Your task to perform on an android device: toggle priority inbox in the gmail app Image 0: 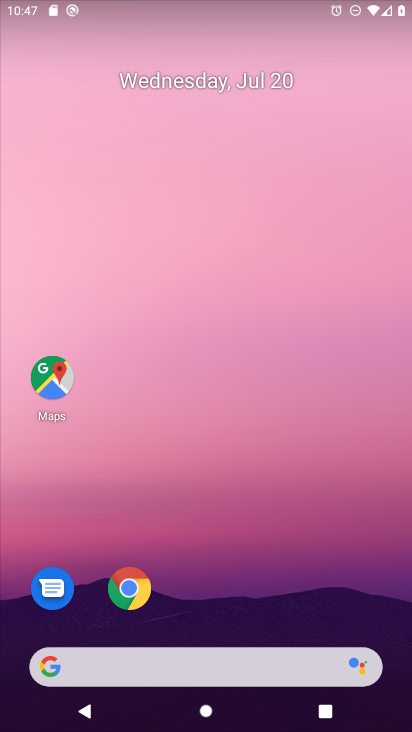
Step 0: drag from (257, 640) to (234, 103)
Your task to perform on an android device: toggle priority inbox in the gmail app Image 1: 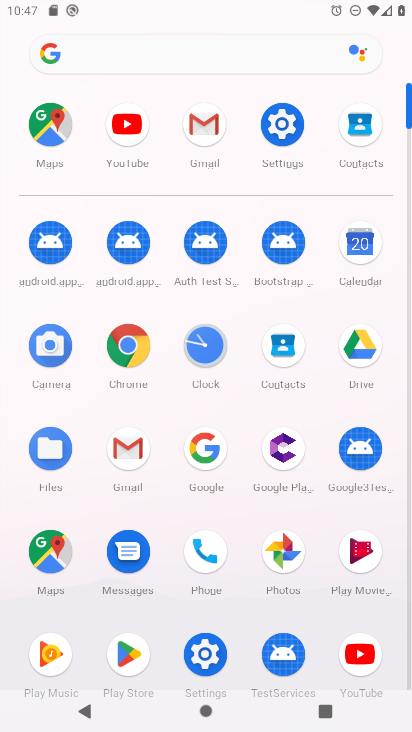
Step 1: click (221, 134)
Your task to perform on an android device: toggle priority inbox in the gmail app Image 2: 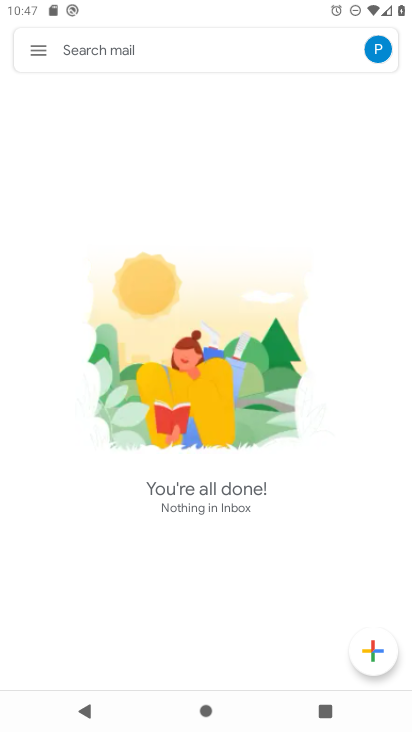
Step 2: click (34, 43)
Your task to perform on an android device: toggle priority inbox in the gmail app Image 3: 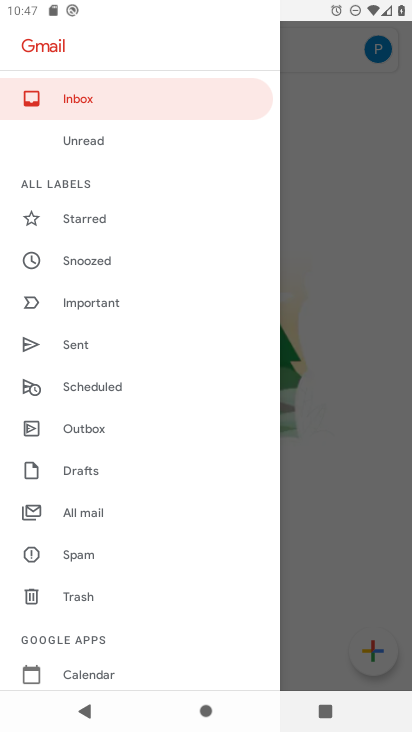
Step 3: drag from (119, 685) to (154, 274)
Your task to perform on an android device: toggle priority inbox in the gmail app Image 4: 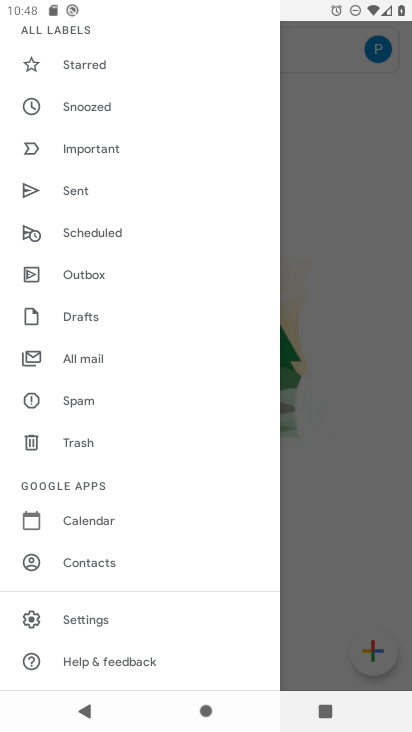
Step 4: click (52, 627)
Your task to perform on an android device: toggle priority inbox in the gmail app Image 5: 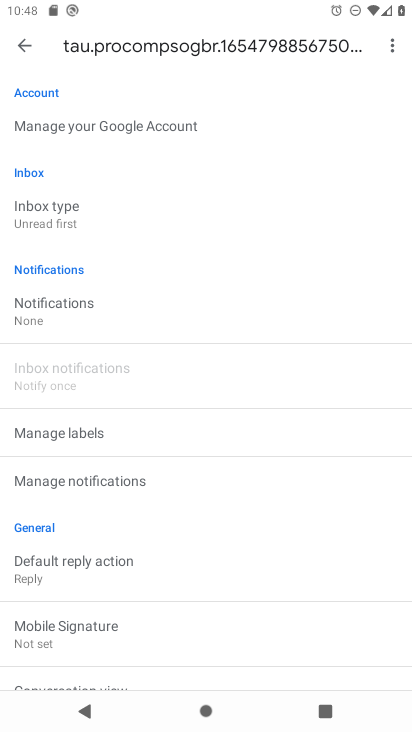
Step 5: click (61, 205)
Your task to perform on an android device: toggle priority inbox in the gmail app Image 6: 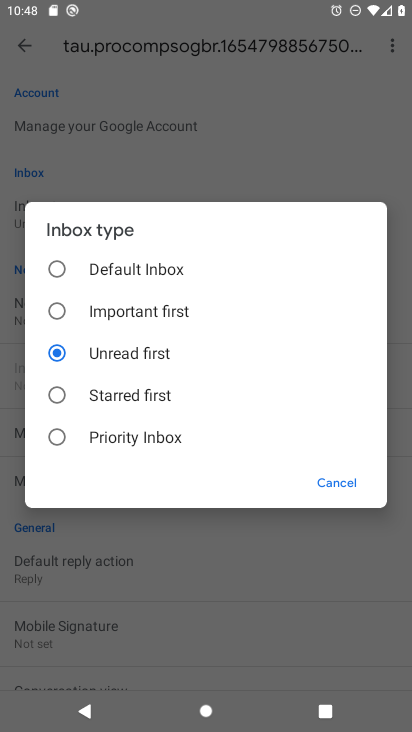
Step 6: click (84, 412)
Your task to perform on an android device: toggle priority inbox in the gmail app Image 7: 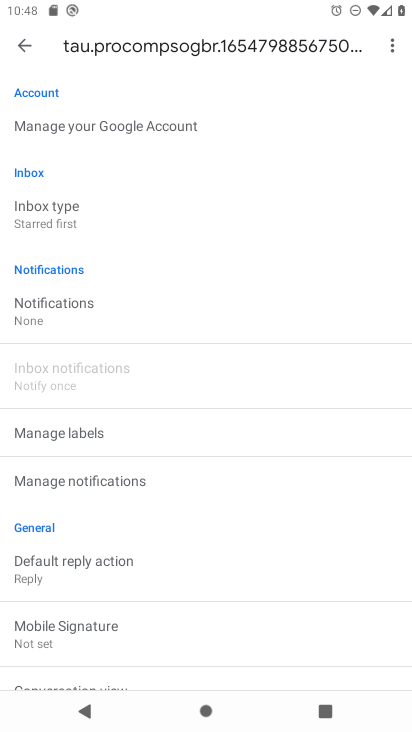
Step 7: task complete